Your task to perform on an android device: Open settings Image 0: 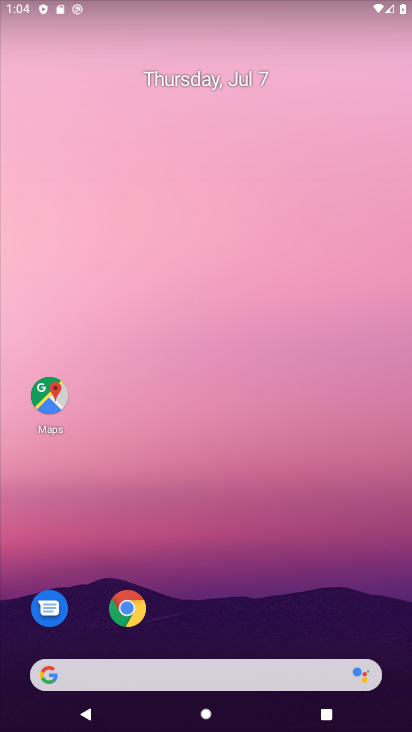
Step 0: drag from (199, 642) to (222, 47)
Your task to perform on an android device: Open settings Image 1: 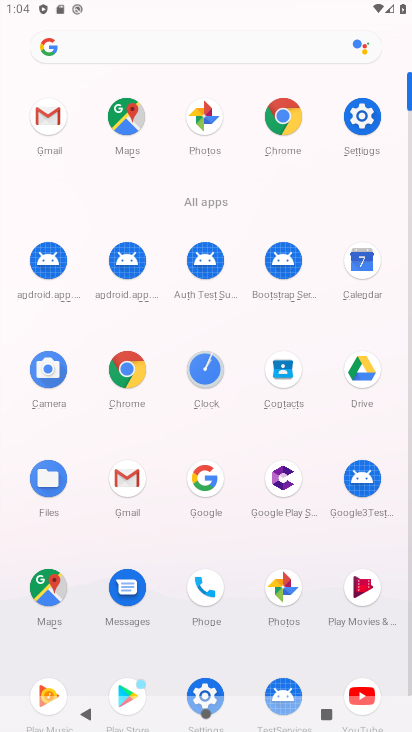
Step 1: click (369, 110)
Your task to perform on an android device: Open settings Image 2: 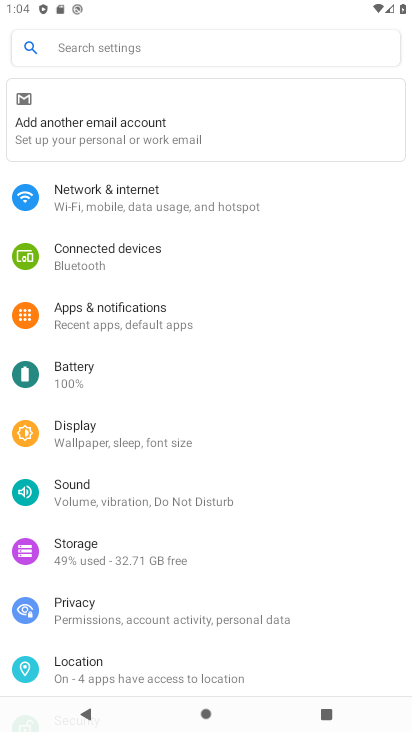
Step 2: task complete